Your task to perform on an android device: Open Reddit.com Image 0: 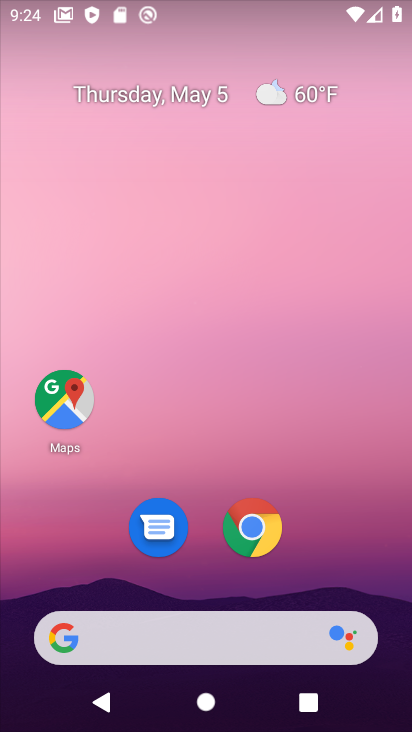
Step 0: click (264, 539)
Your task to perform on an android device: Open Reddit.com Image 1: 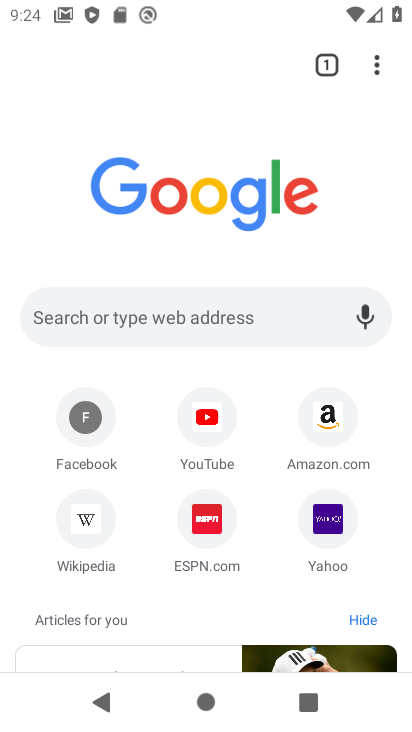
Step 1: click (229, 311)
Your task to perform on an android device: Open Reddit.com Image 2: 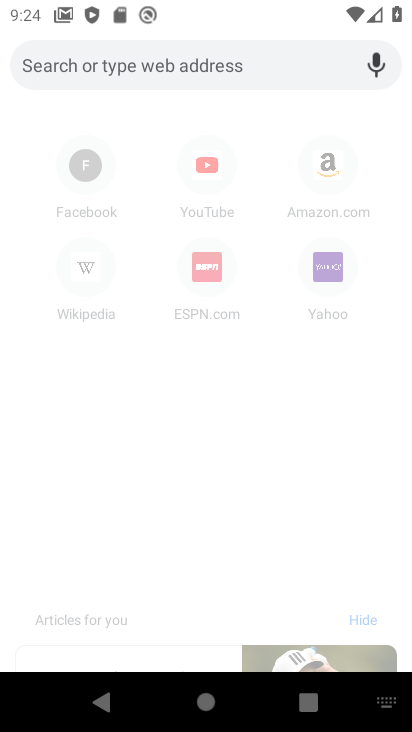
Step 2: type "raddit"
Your task to perform on an android device: Open Reddit.com Image 3: 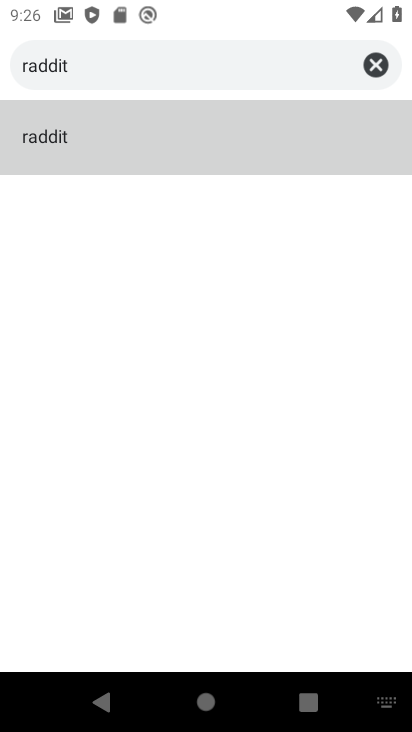
Step 3: click (51, 140)
Your task to perform on an android device: Open Reddit.com Image 4: 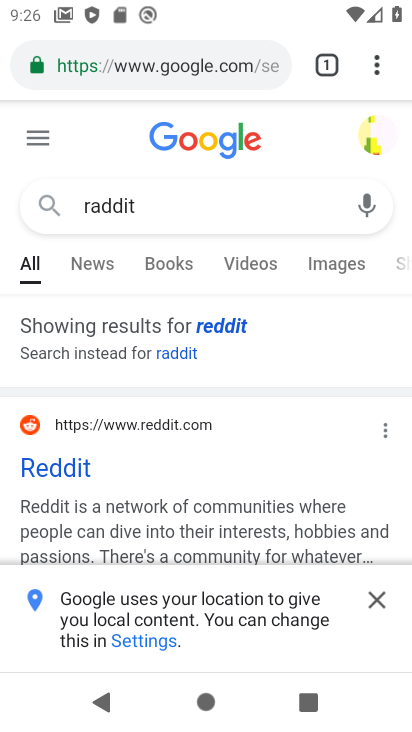
Step 4: click (54, 460)
Your task to perform on an android device: Open Reddit.com Image 5: 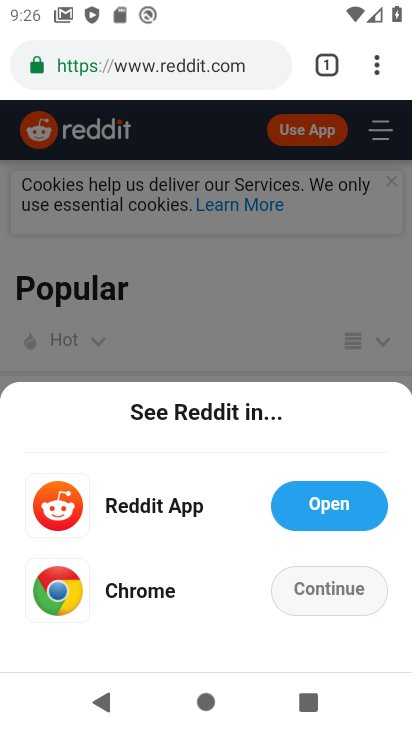
Step 5: task complete